Your task to perform on an android device: toggle javascript in the chrome app Image 0: 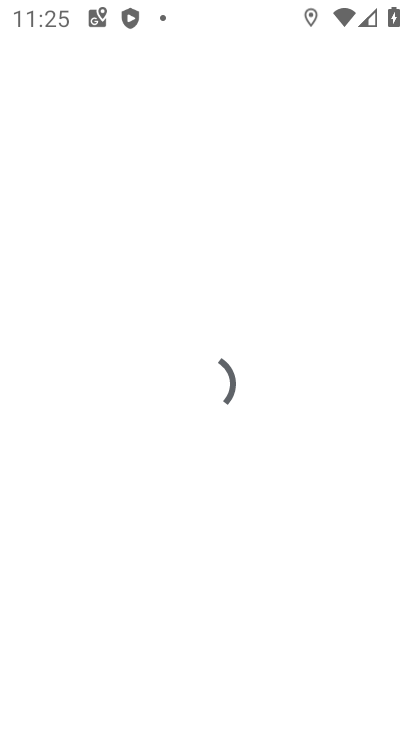
Step 0: drag from (357, 580) to (317, 142)
Your task to perform on an android device: toggle javascript in the chrome app Image 1: 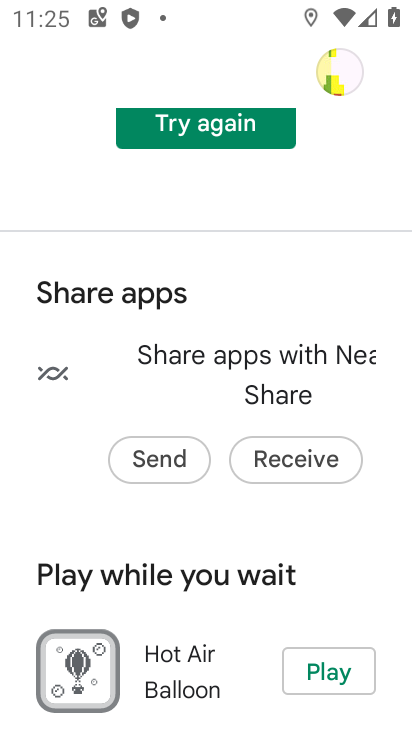
Step 1: press home button
Your task to perform on an android device: toggle javascript in the chrome app Image 2: 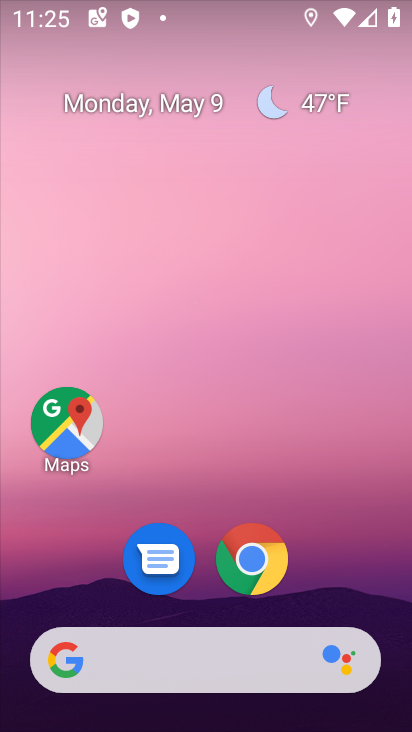
Step 2: click (244, 580)
Your task to perform on an android device: toggle javascript in the chrome app Image 3: 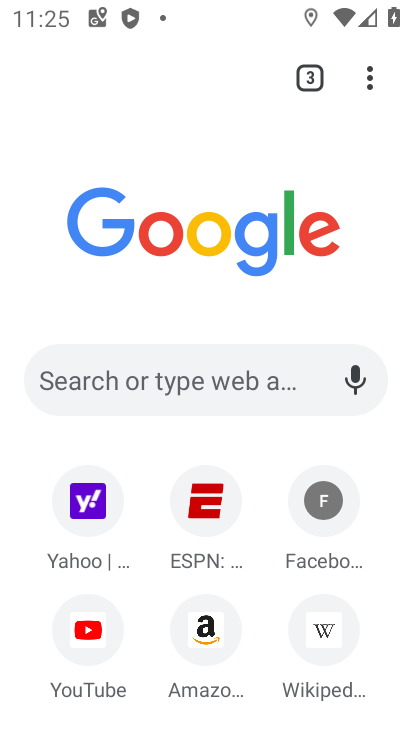
Step 3: drag from (388, 74) to (147, 638)
Your task to perform on an android device: toggle javascript in the chrome app Image 4: 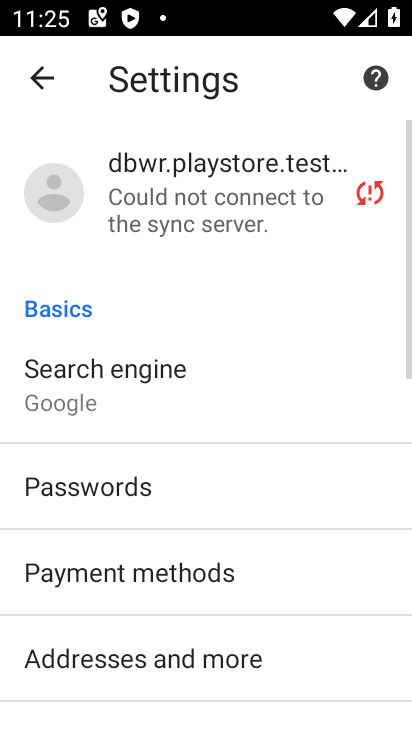
Step 4: drag from (192, 604) to (225, 135)
Your task to perform on an android device: toggle javascript in the chrome app Image 5: 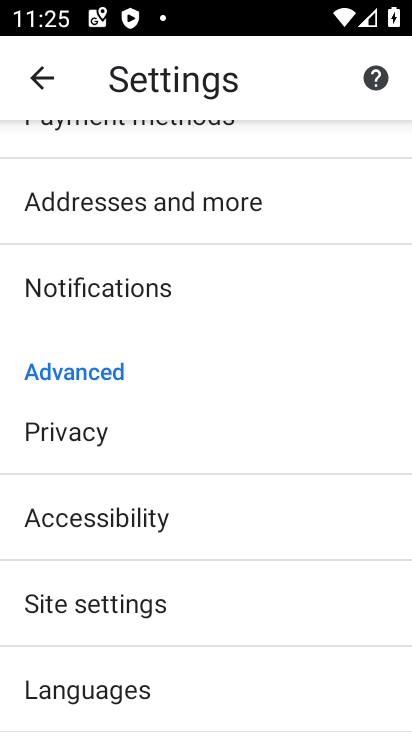
Step 5: click (114, 612)
Your task to perform on an android device: toggle javascript in the chrome app Image 6: 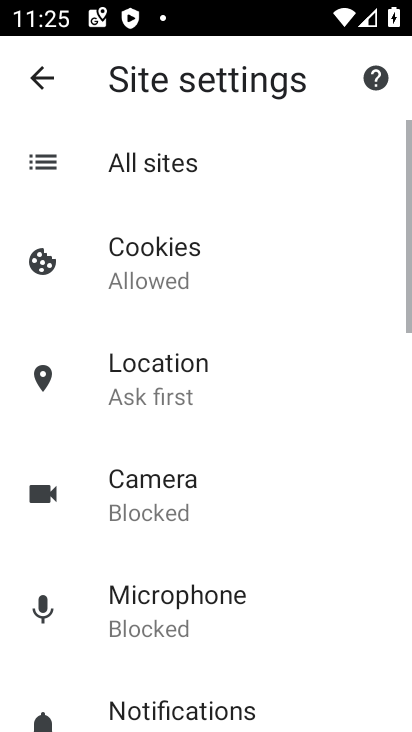
Step 6: drag from (177, 615) to (203, 202)
Your task to perform on an android device: toggle javascript in the chrome app Image 7: 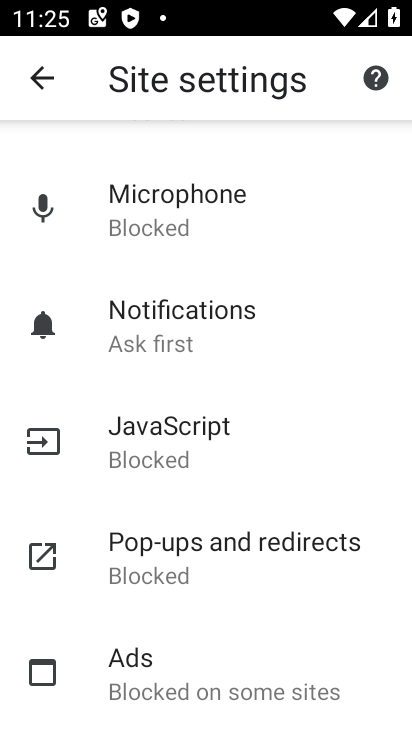
Step 7: drag from (146, 630) to (150, 516)
Your task to perform on an android device: toggle javascript in the chrome app Image 8: 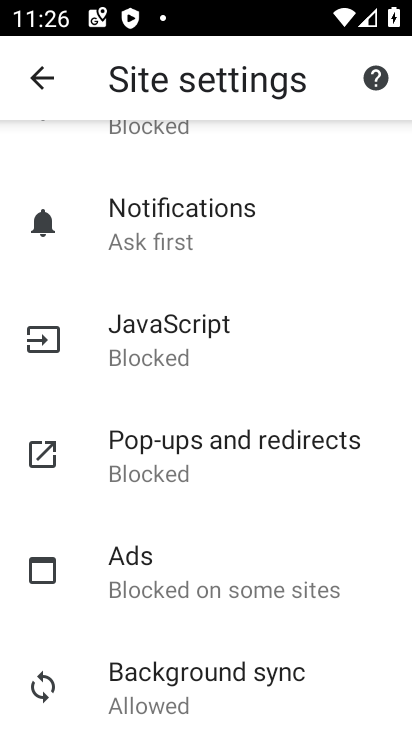
Step 8: click (200, 380)
Your task to perform on an android device: toggle javascript in the chrome app Image 9: 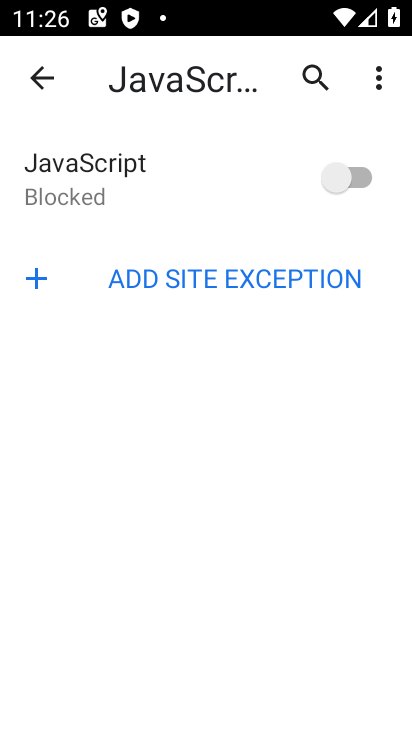
Step 9: click (347, 176)
Your task to perform on an android device: toggle javascript in the chrome app Image 10: 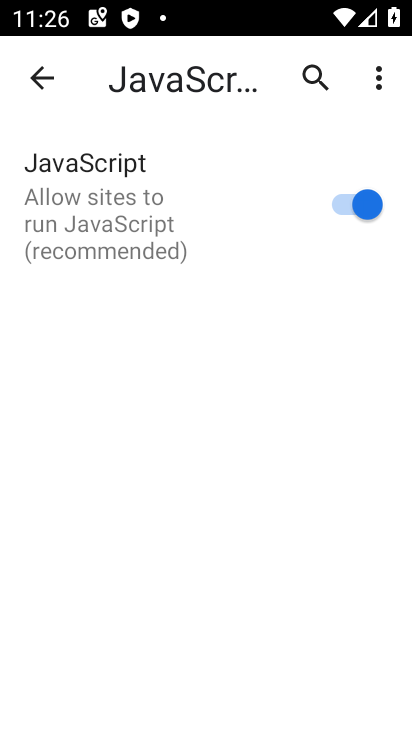
Step 10: task complete